Your task to perform on an android device: change timer sound Image 0: 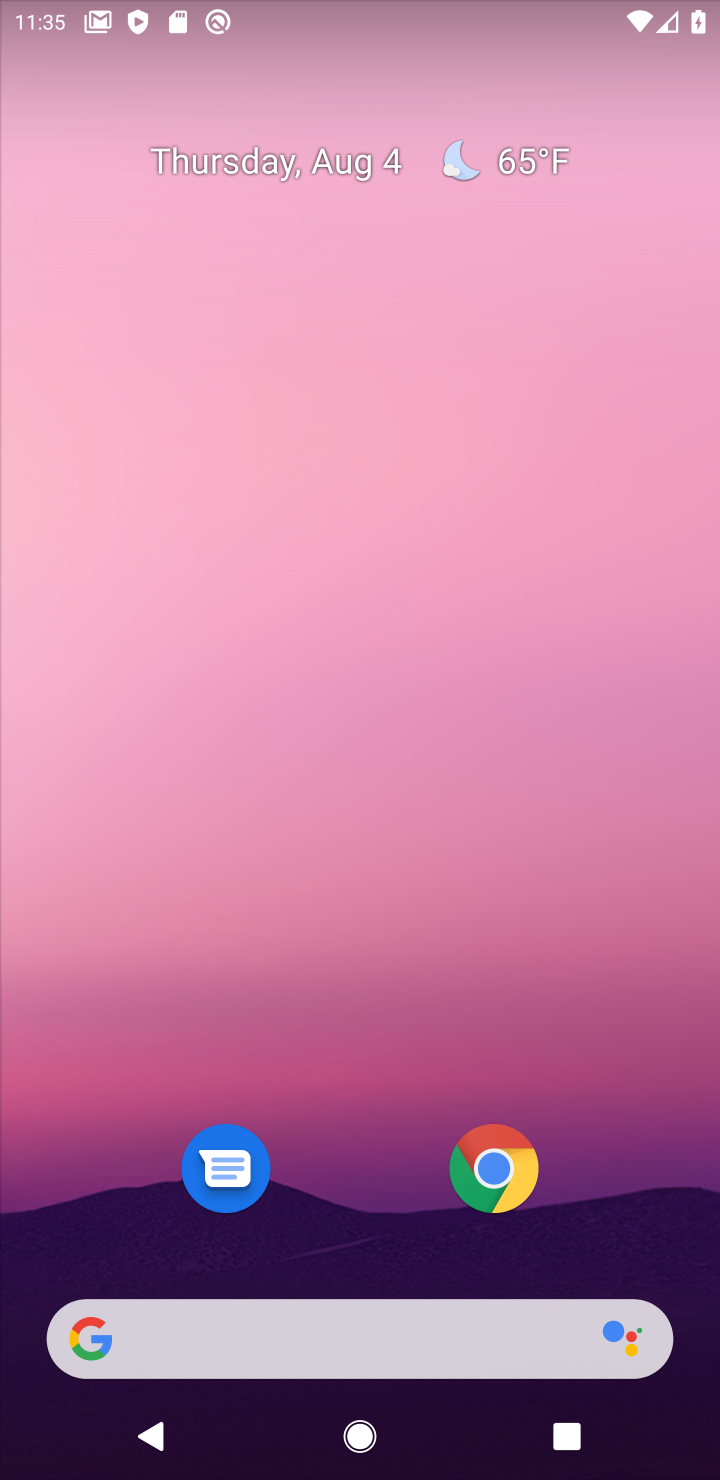
Step 0: drag from (318, 1212) to (316, 74)
Your task to perform on an android device: change timer sound Image 1: 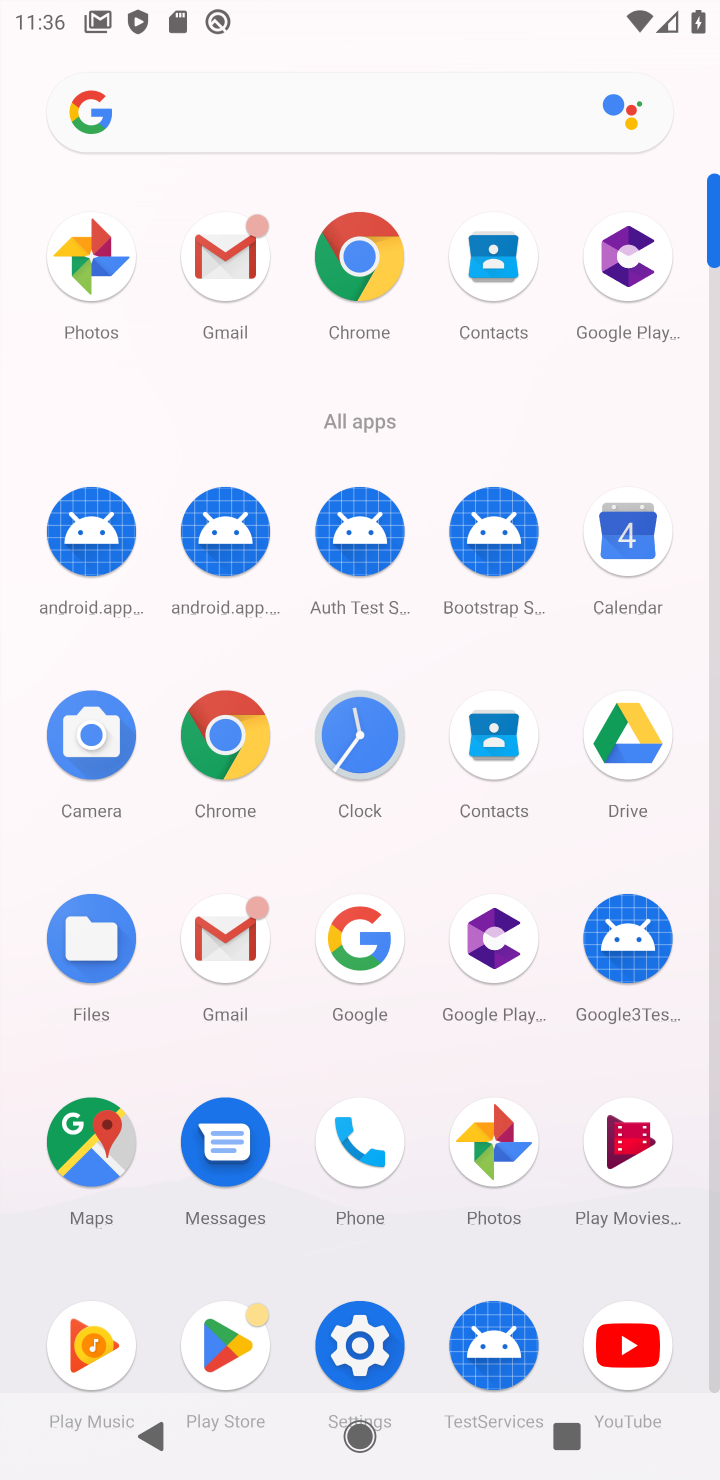
Step 1: click (366, 729)
Your task to perform on an android device: change timer sound Image 2: 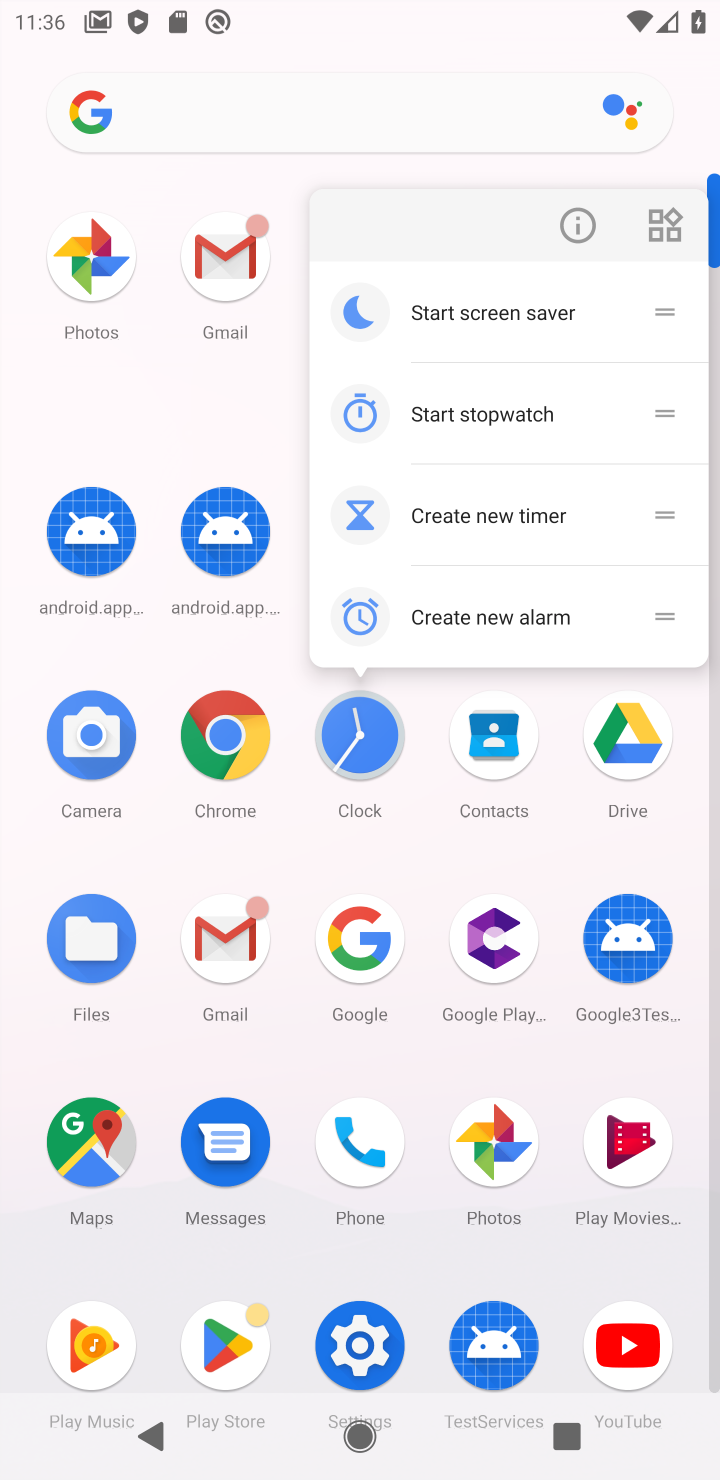
Step 2: click (366, 727)
Your task to perform on an android device: change timer sound Image 3: 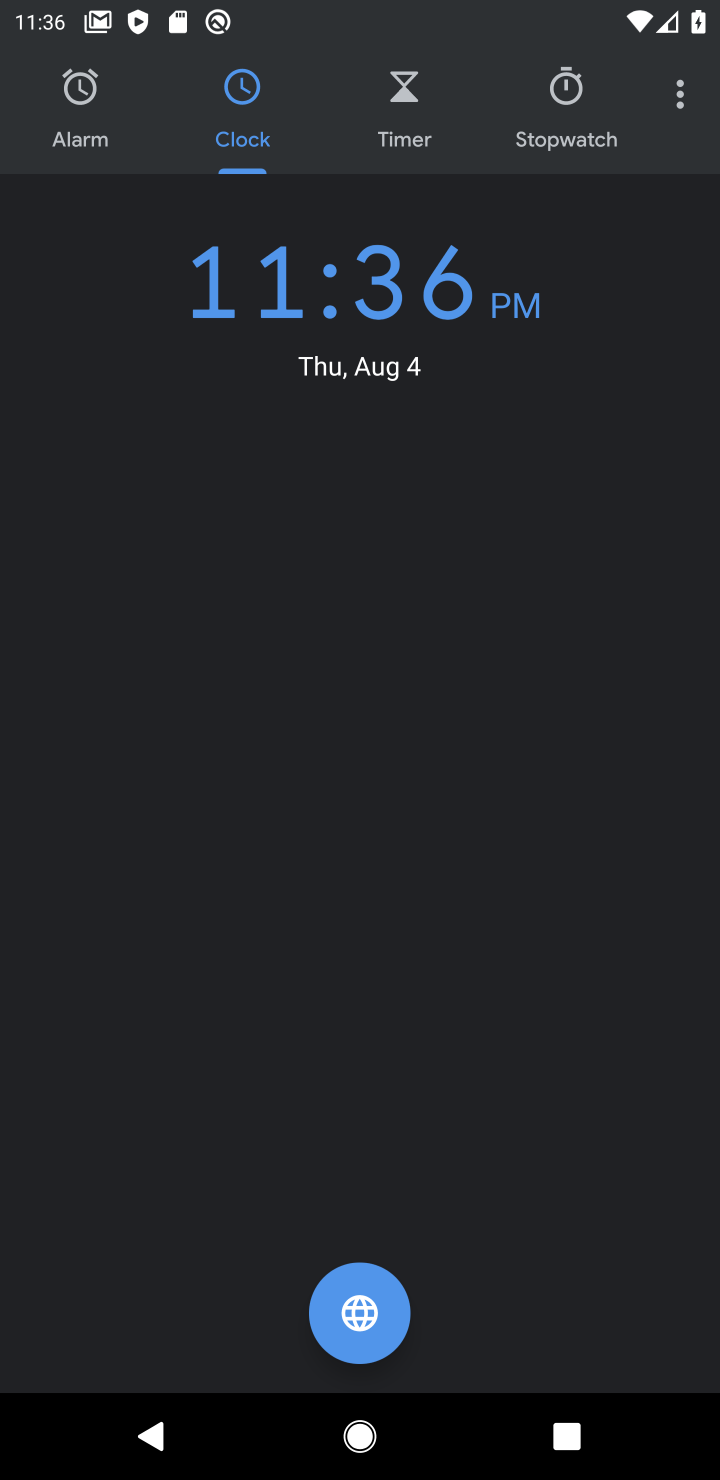
Step 3: click (664, 93)
Your task to perform on an android device: change timer sound Image 4: 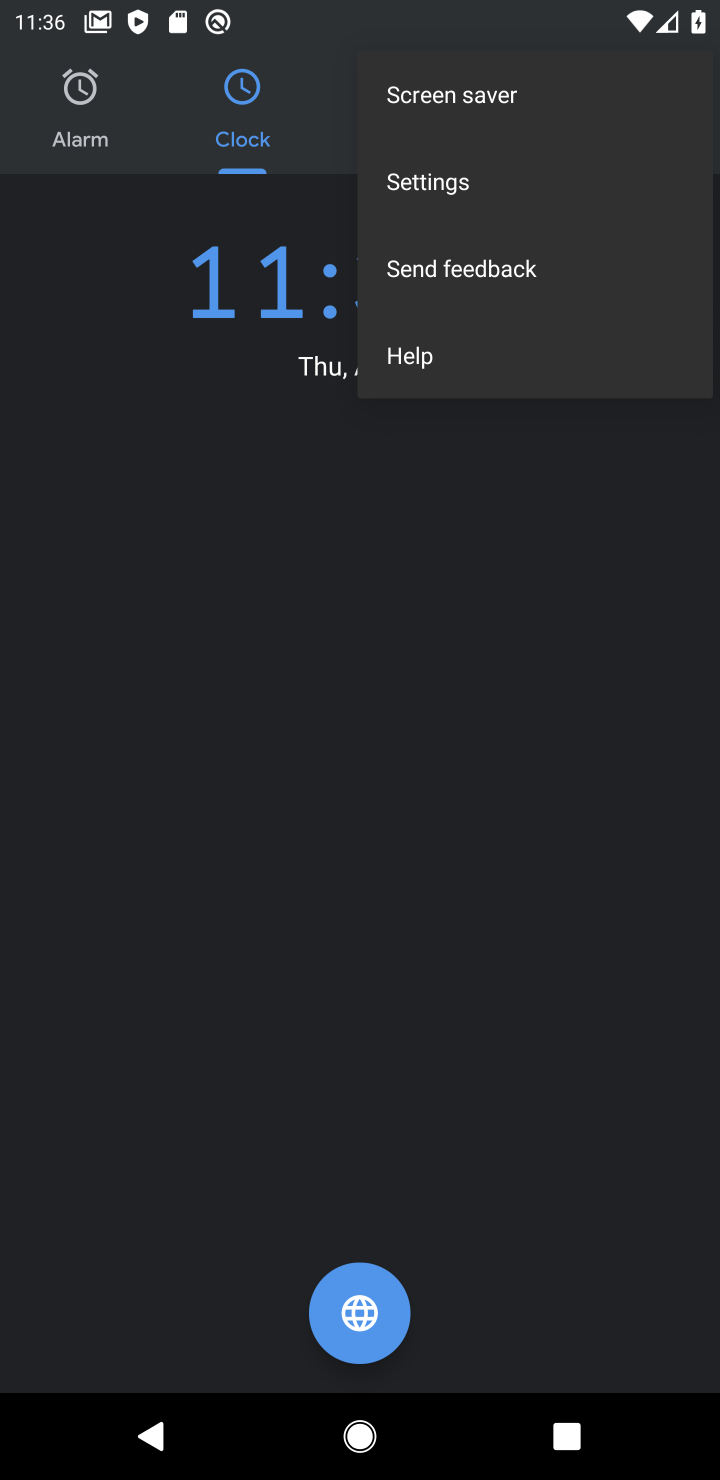
Step 4: click (425, 190)
Your task to perform on an android device: change timer sound Image 5: 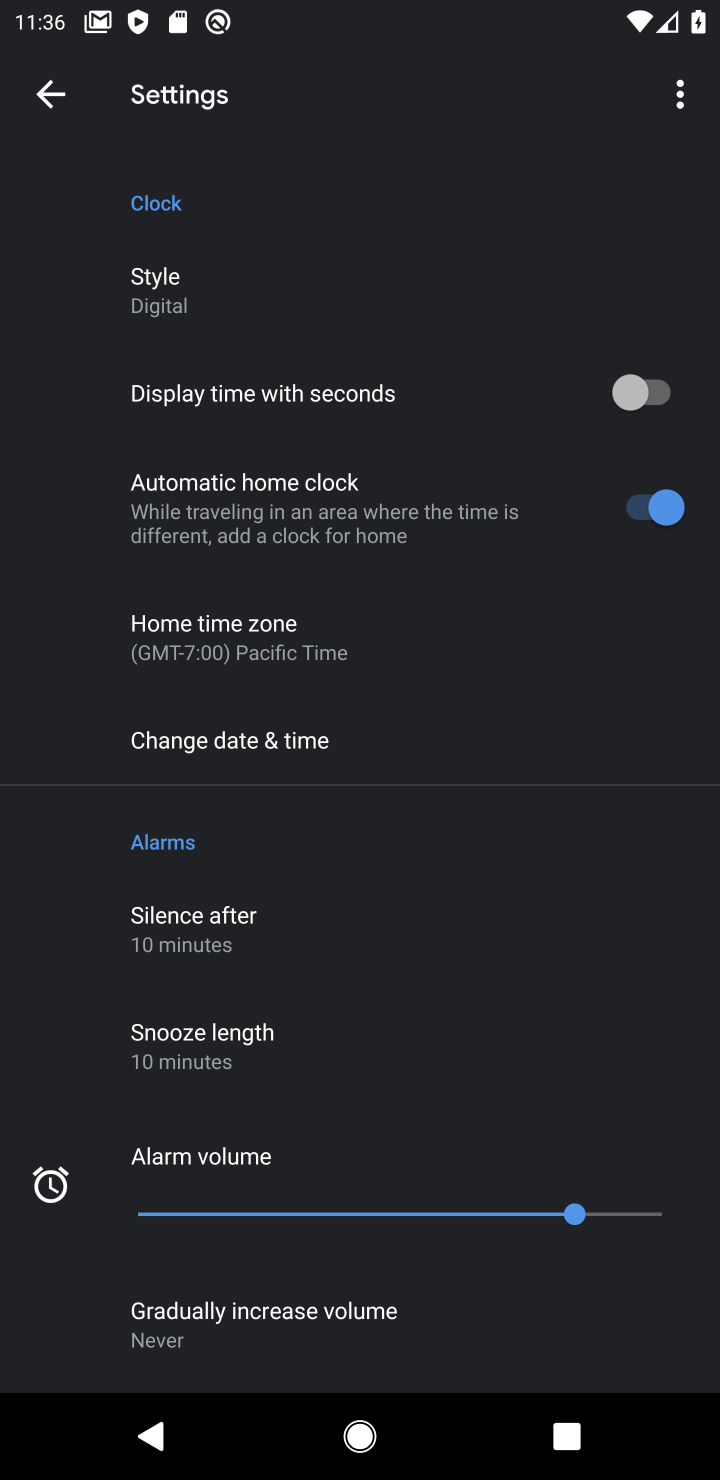
Step 5: drag from (278, 1037) to (296, 521)
Your task to perform on an android device: change timer sound Image 6: 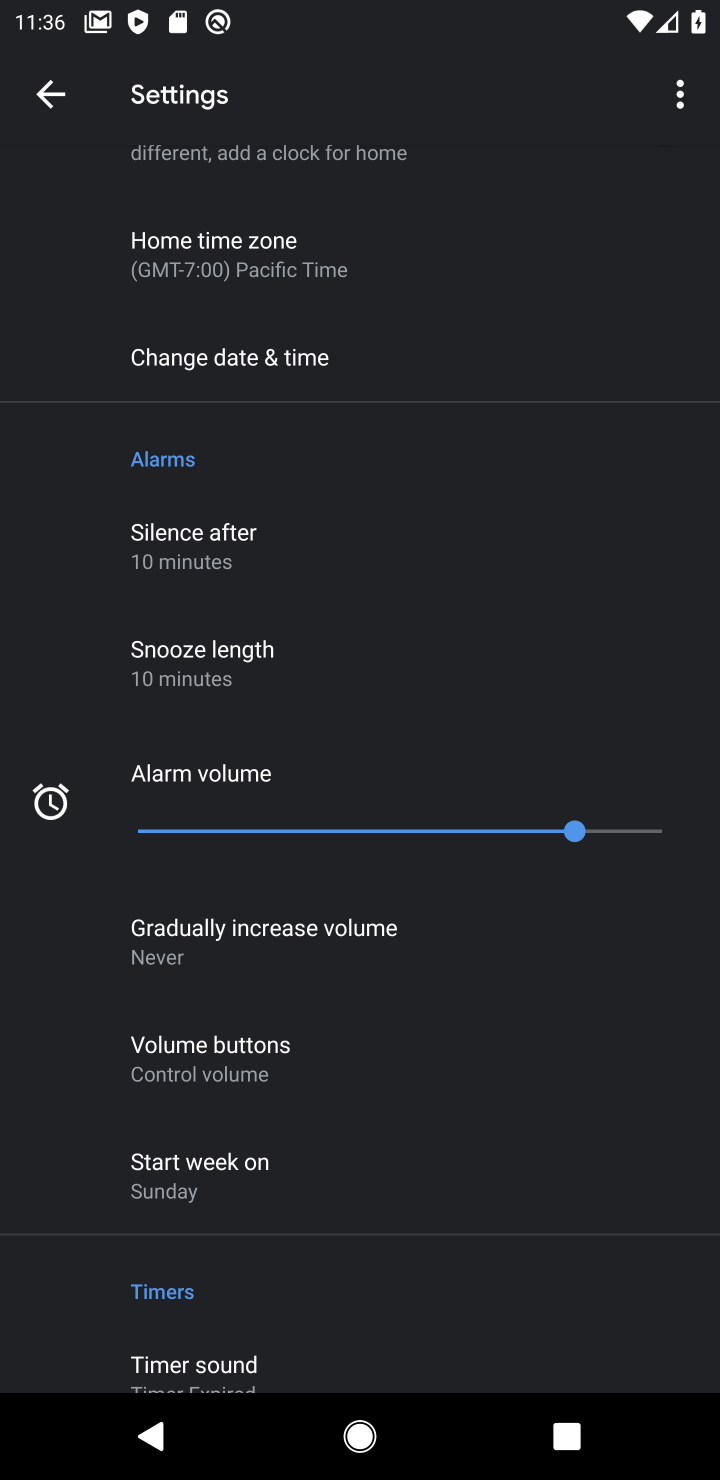
Step 6: drag from (298, 1137) to (321, 687)
Your task to perform on an android device: change timer sound Image 7: 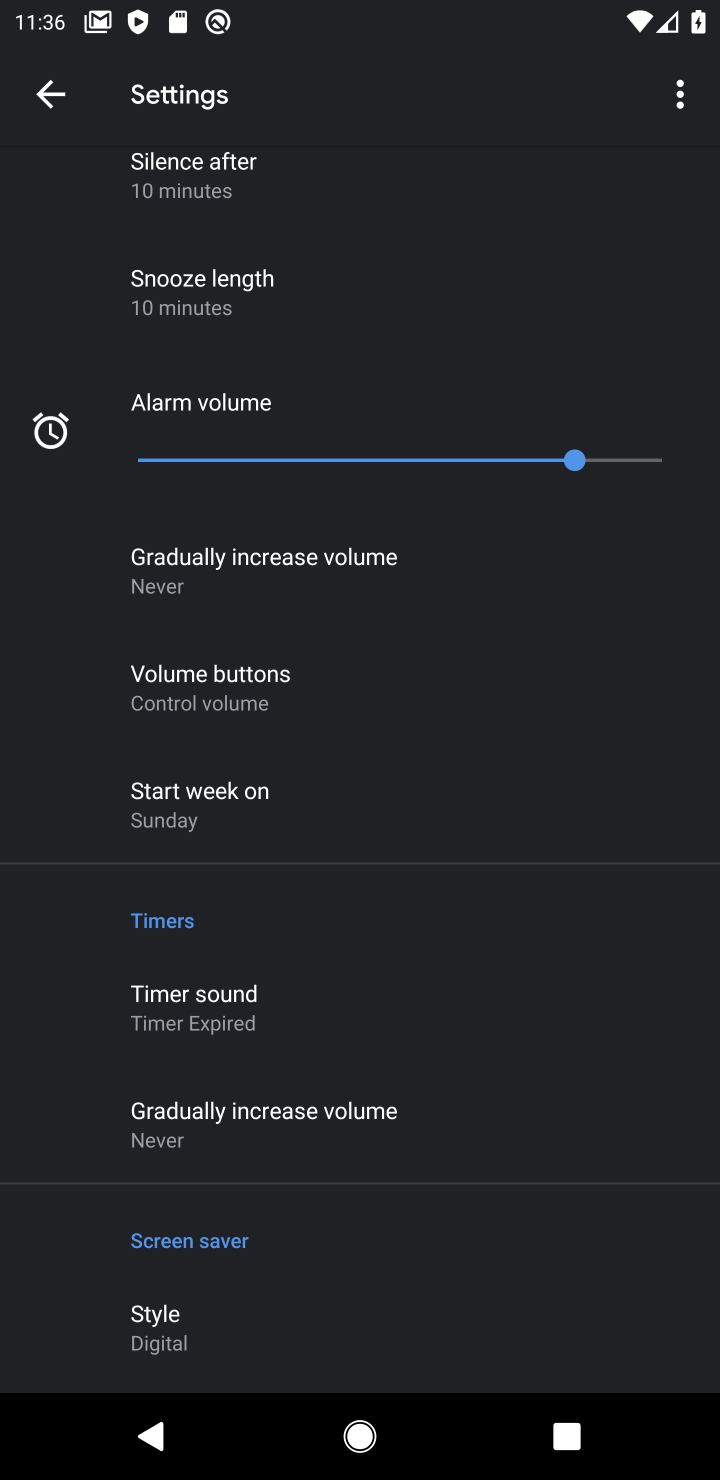
Step 7: click (216, 1012)
Your task to perform on an android device: change timer sound Image 8: 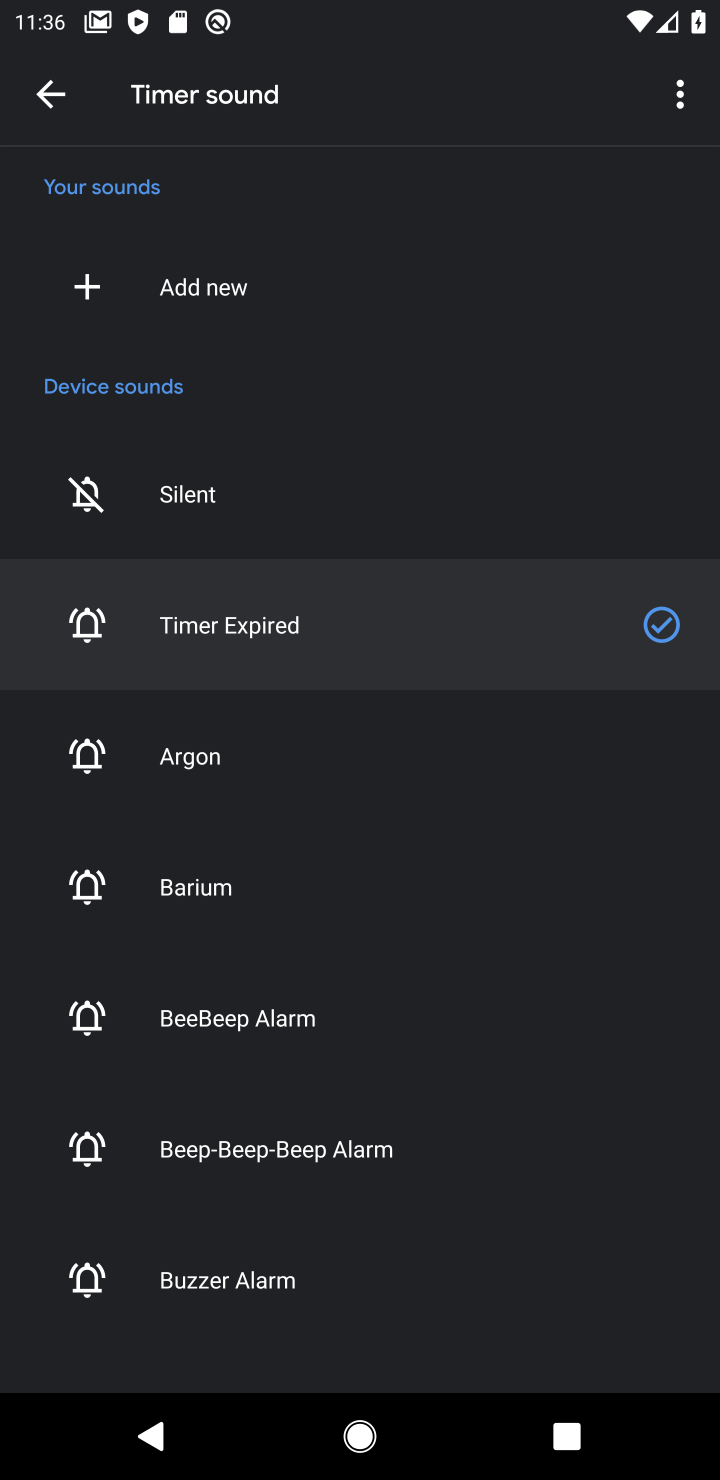
Step 8: click (193, 770)
Your task to perform on an android device: change timer sound Image 9: 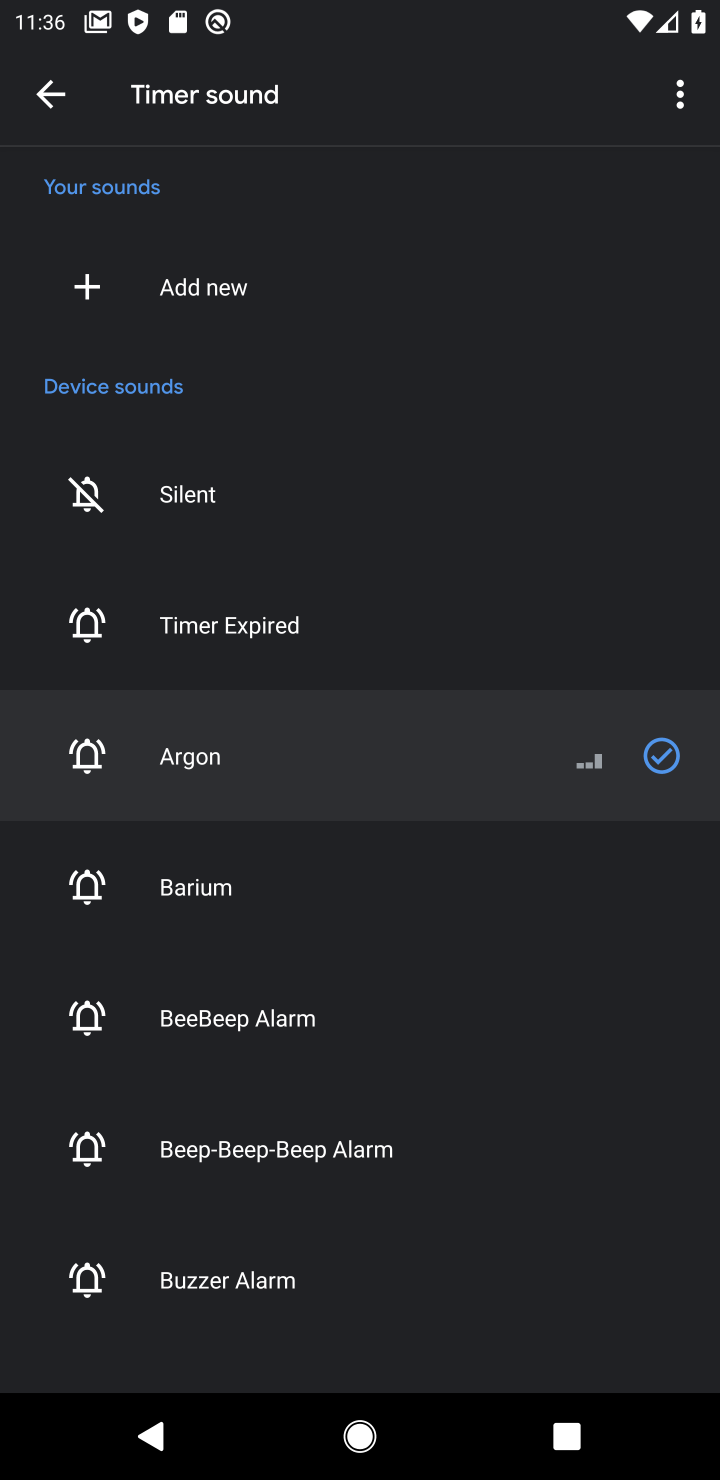
Step 9: task complete